Your task to perform on an android device: open app "NewsBreak: Local News & Alerts" (install if not already installed) Image 0: 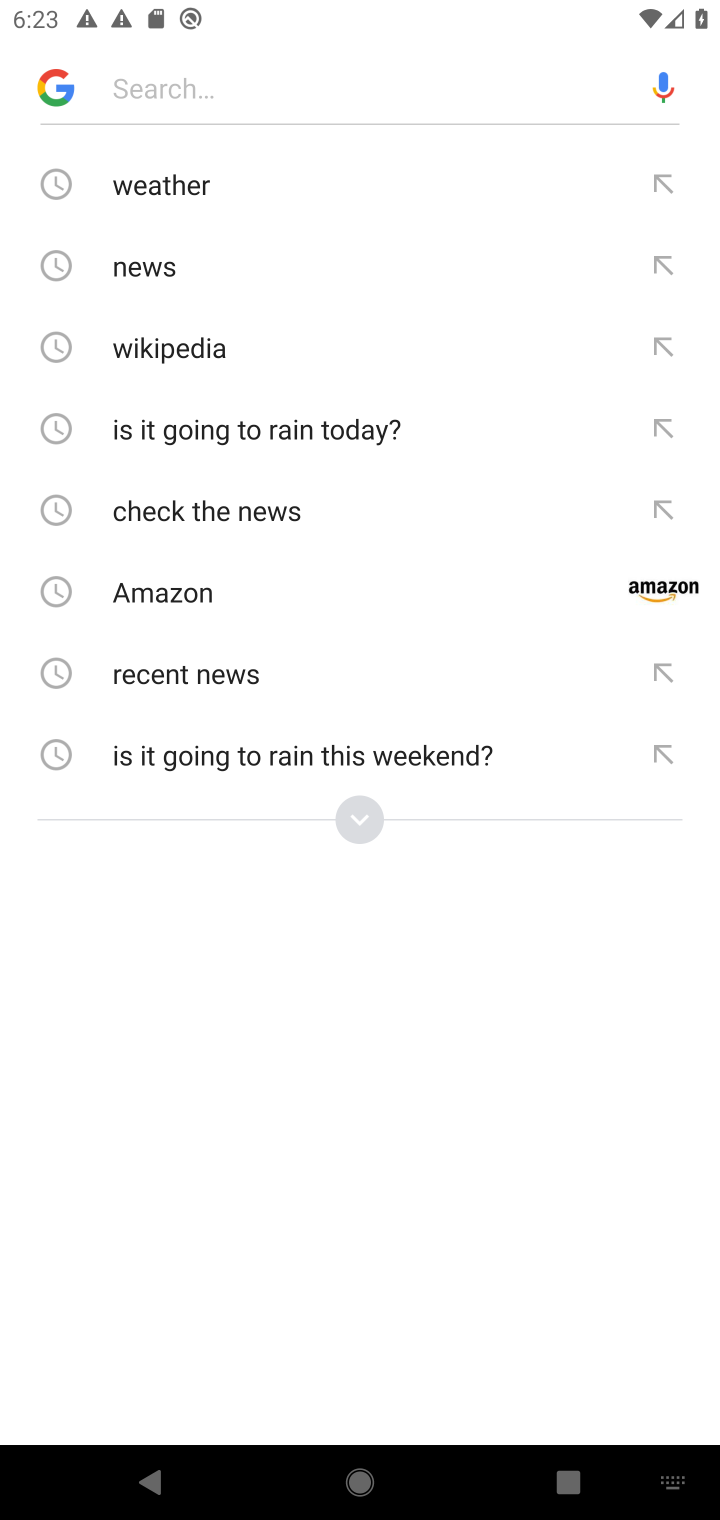
Step 0: press home button
Your task to perform on an android device: open app "NewsBreak: Local News & Alerts" (install if not already installed) Image 1: 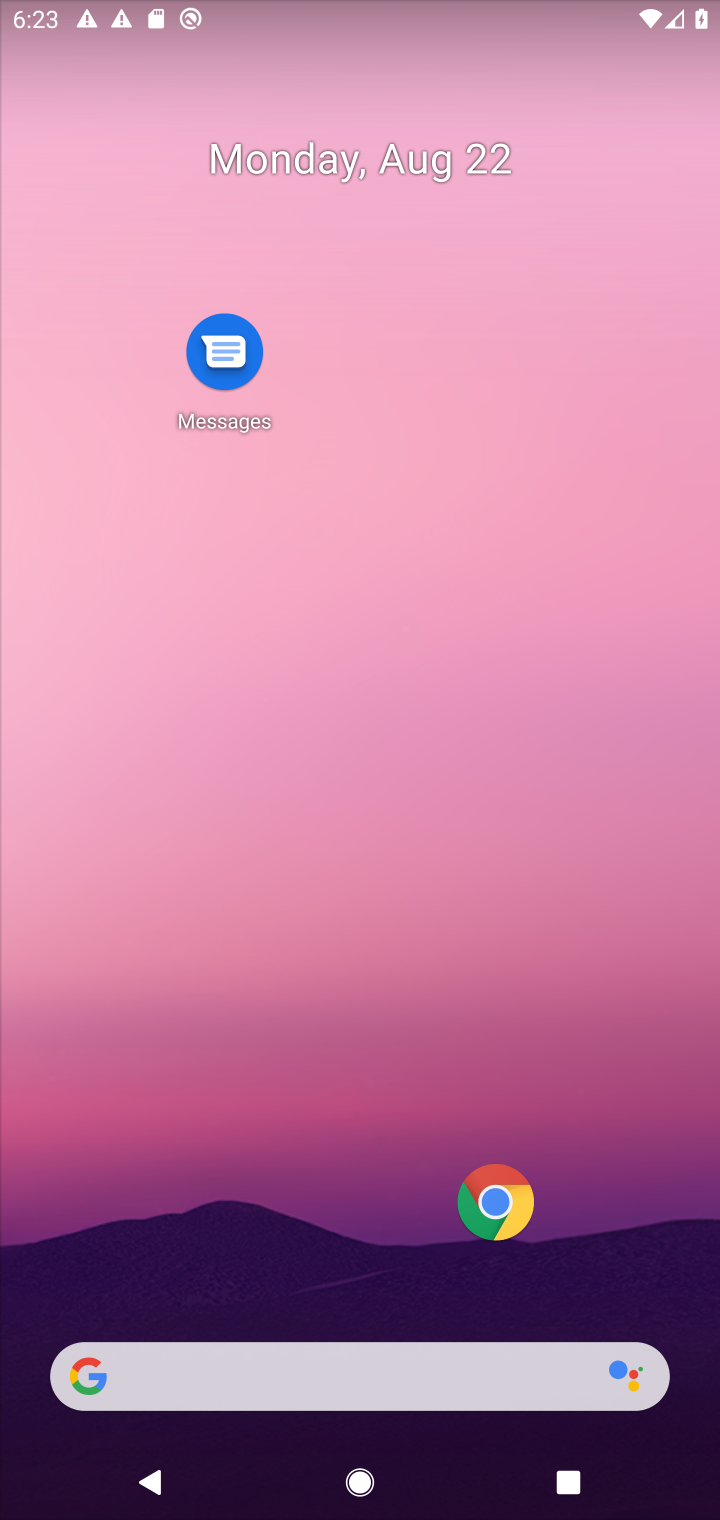
Step 1: drag from (281, 869) to (281, 328)
Your task to perform on an android device: open app "NewsBreak: Local News & Alerts" (install if not already installed) Image 2: 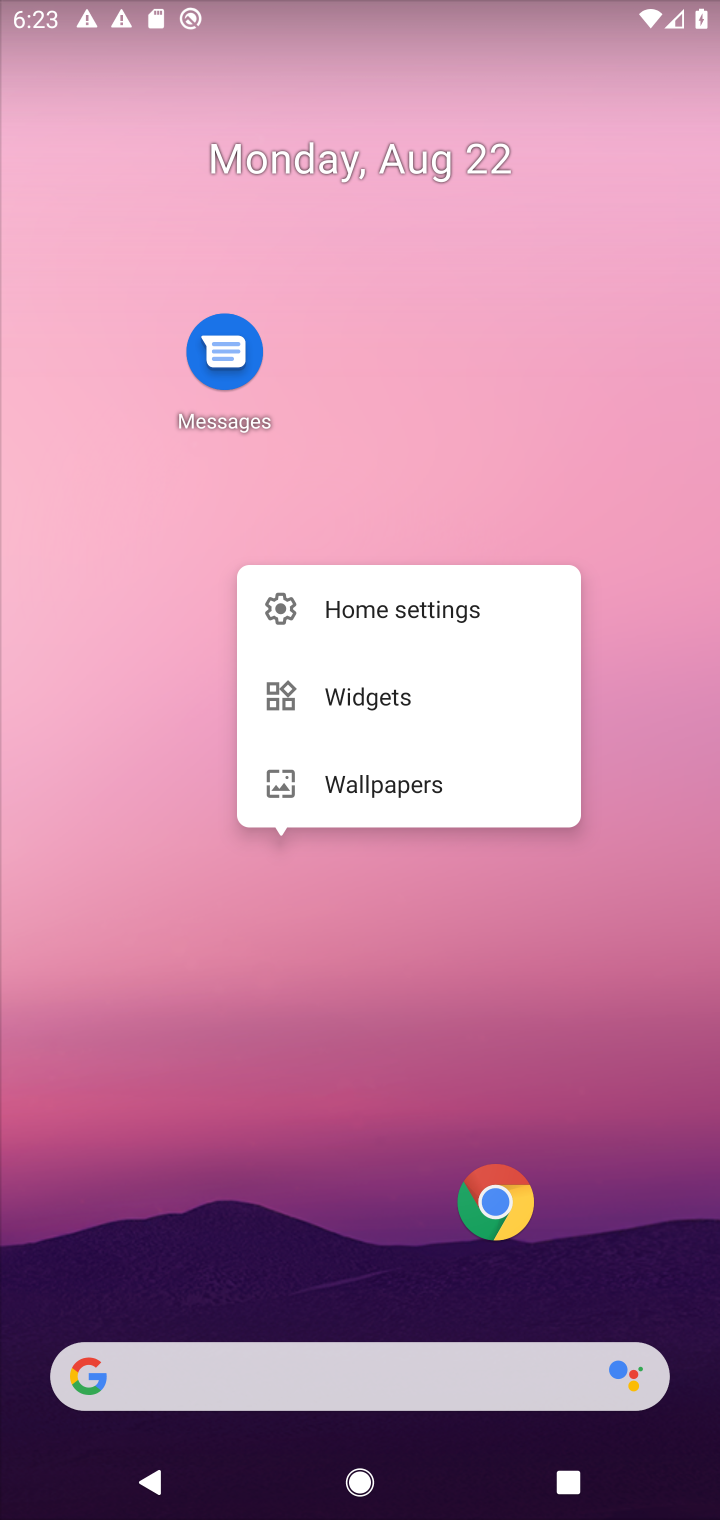
Step 2: drag from (283, 1347) to (73, 246)
Your task to perform on an android device: open app "NewsBreak: Local News & Alerts" (install if not already installed) Image 3: 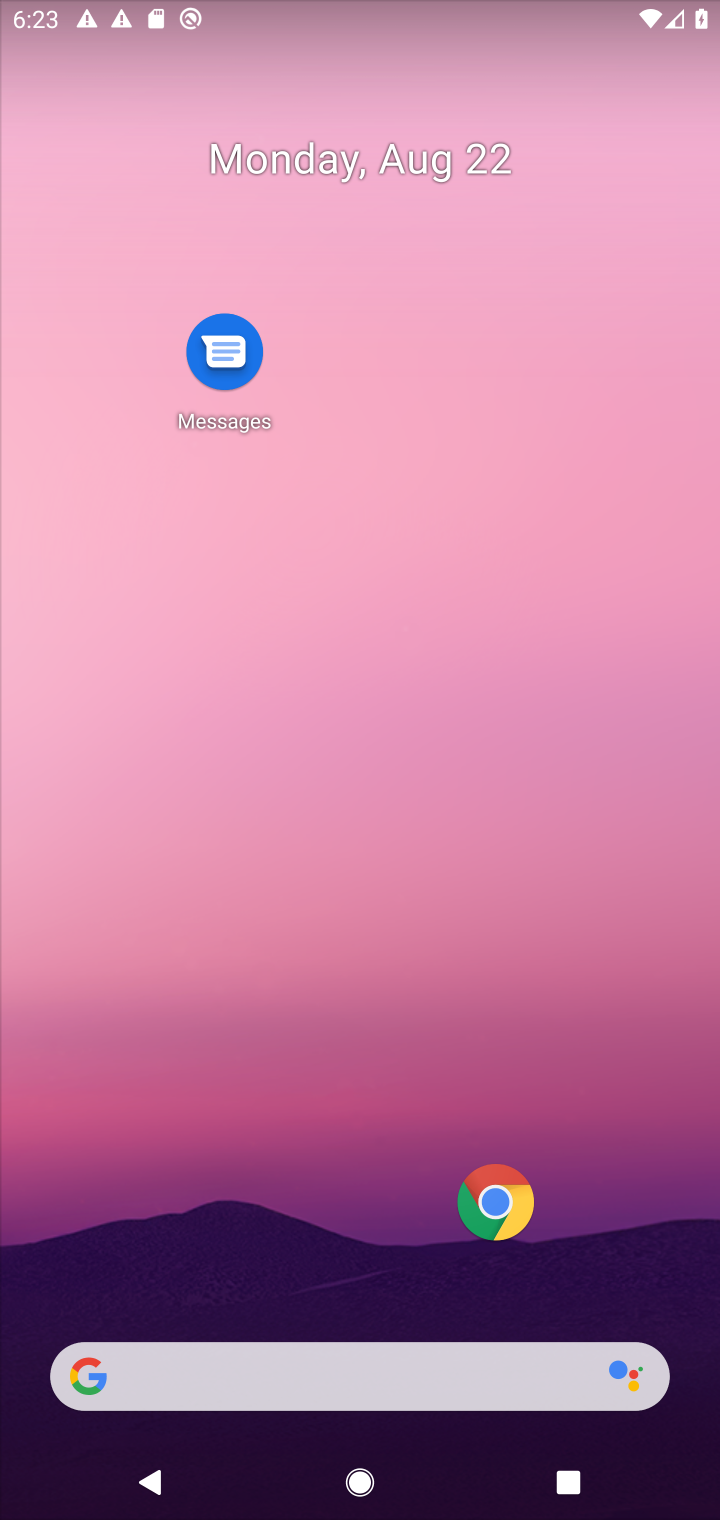
Step 3: drag from (231, 1358) to (256, 220)
Your task to perform on an android device: open app "NewsBreak: Local News & Alerts" (install if not already installed) Image 4: 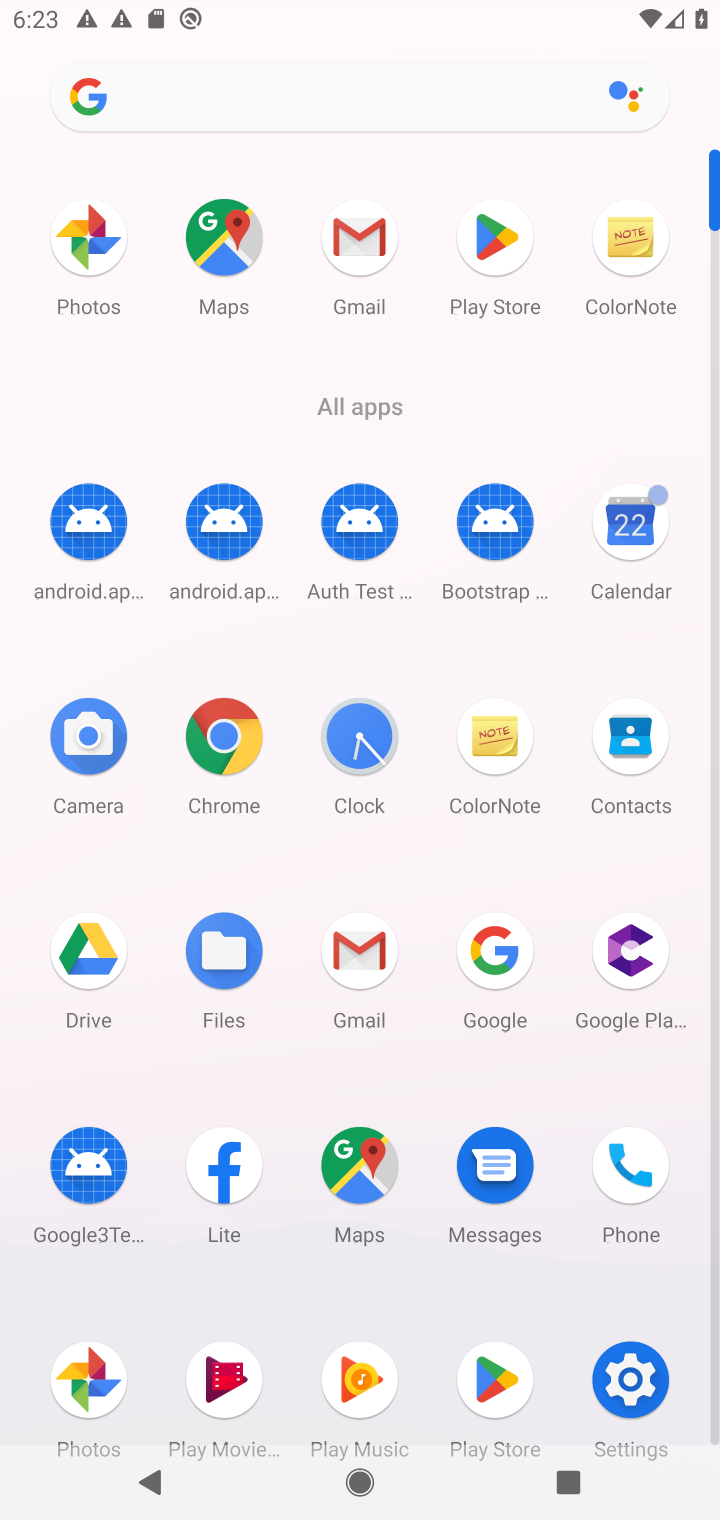
Step 4: click (488, 259)
Your task to perform on an android device: open app "NewsBreak: Local News & Alerts" (install if not already installed) Image 5: 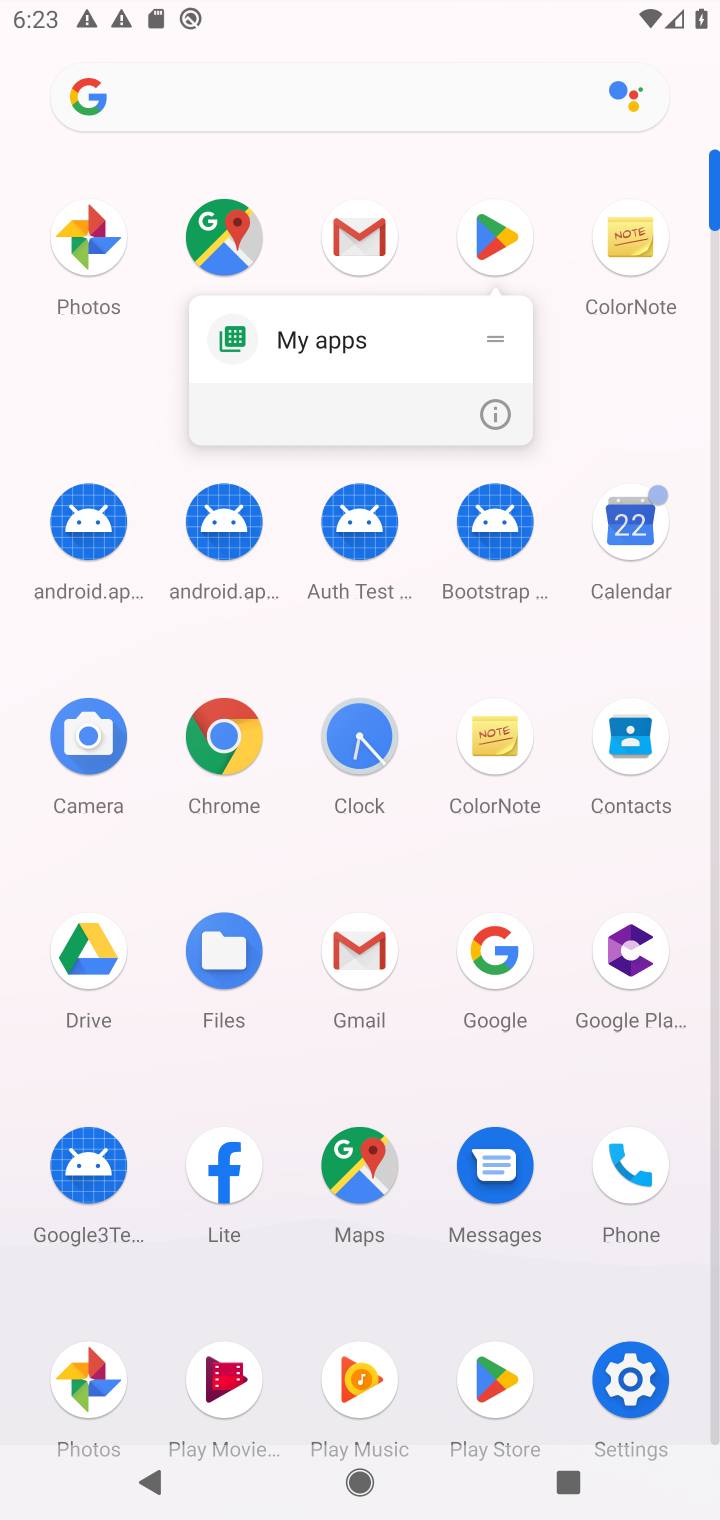
Step 5: click (490, 232)
Your task to perform on an android device: open app "NewsBreak: Local News & Alerts" (install if not already installed) Image 6: 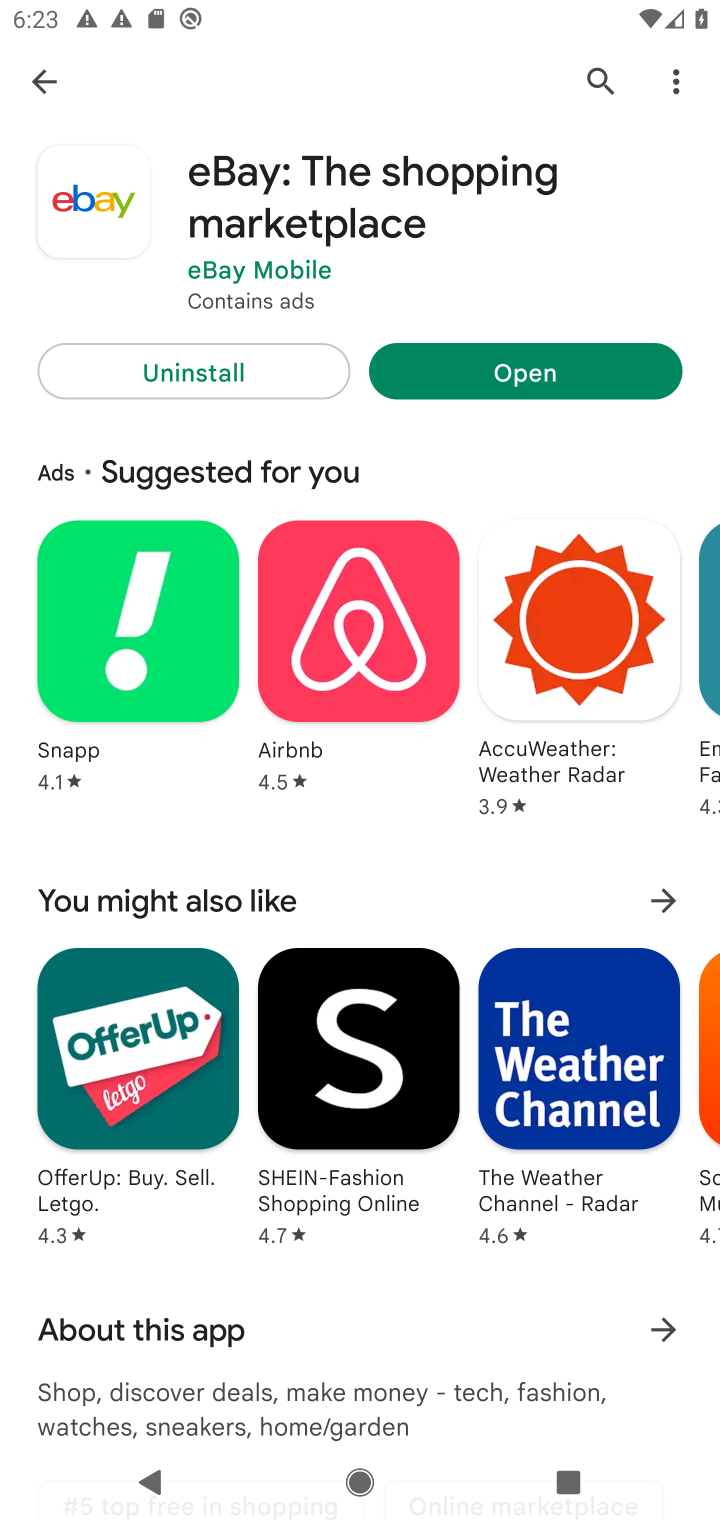
Step 6: click (602, 76)
Your task to perform on an android device: open app "NewsBreak: Local News & Alerts" (install if not already installed) Image 7: 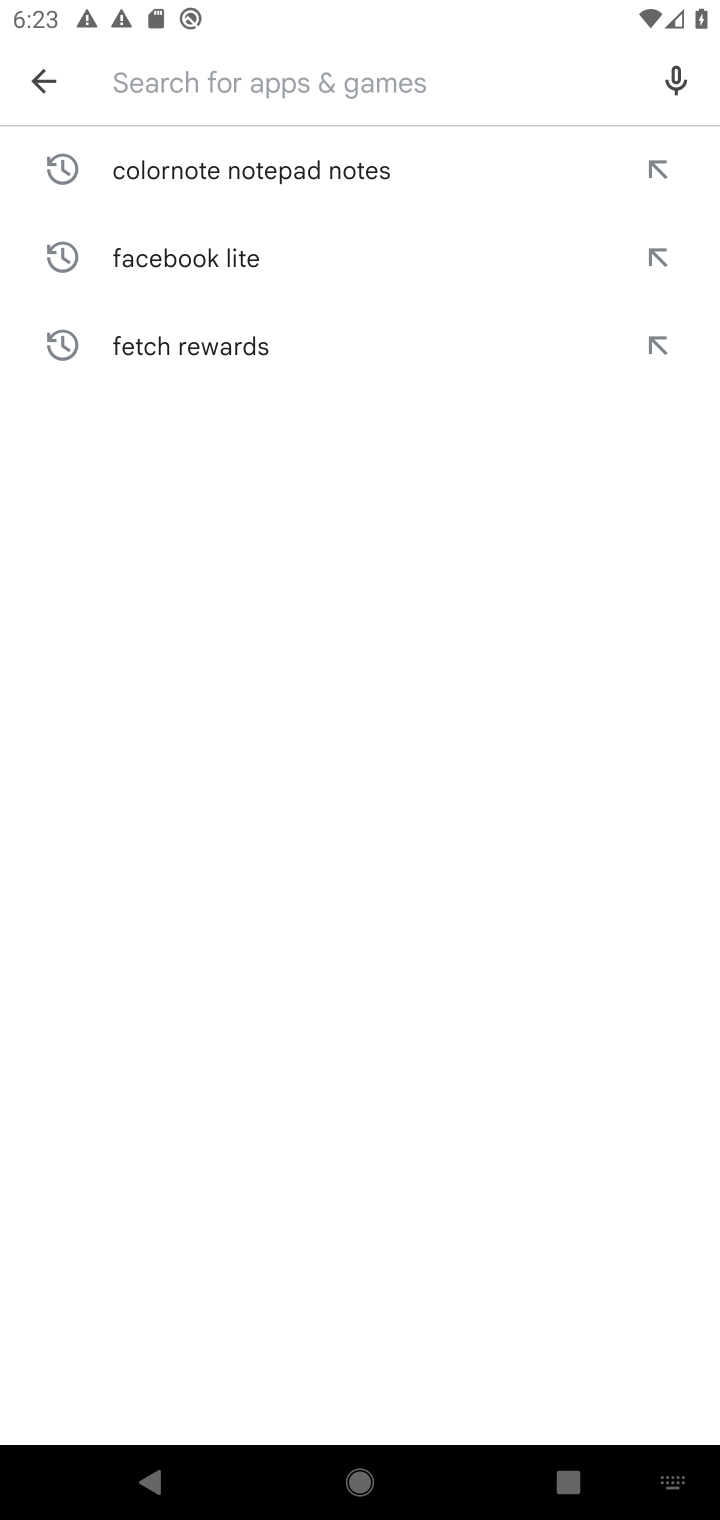
Step 7: type "NewsBreak: Local News & Alerts"
Your task to perform on an android device: open app "NewsBreak: Local News & Alerts" (install if not already installed) Image 8: 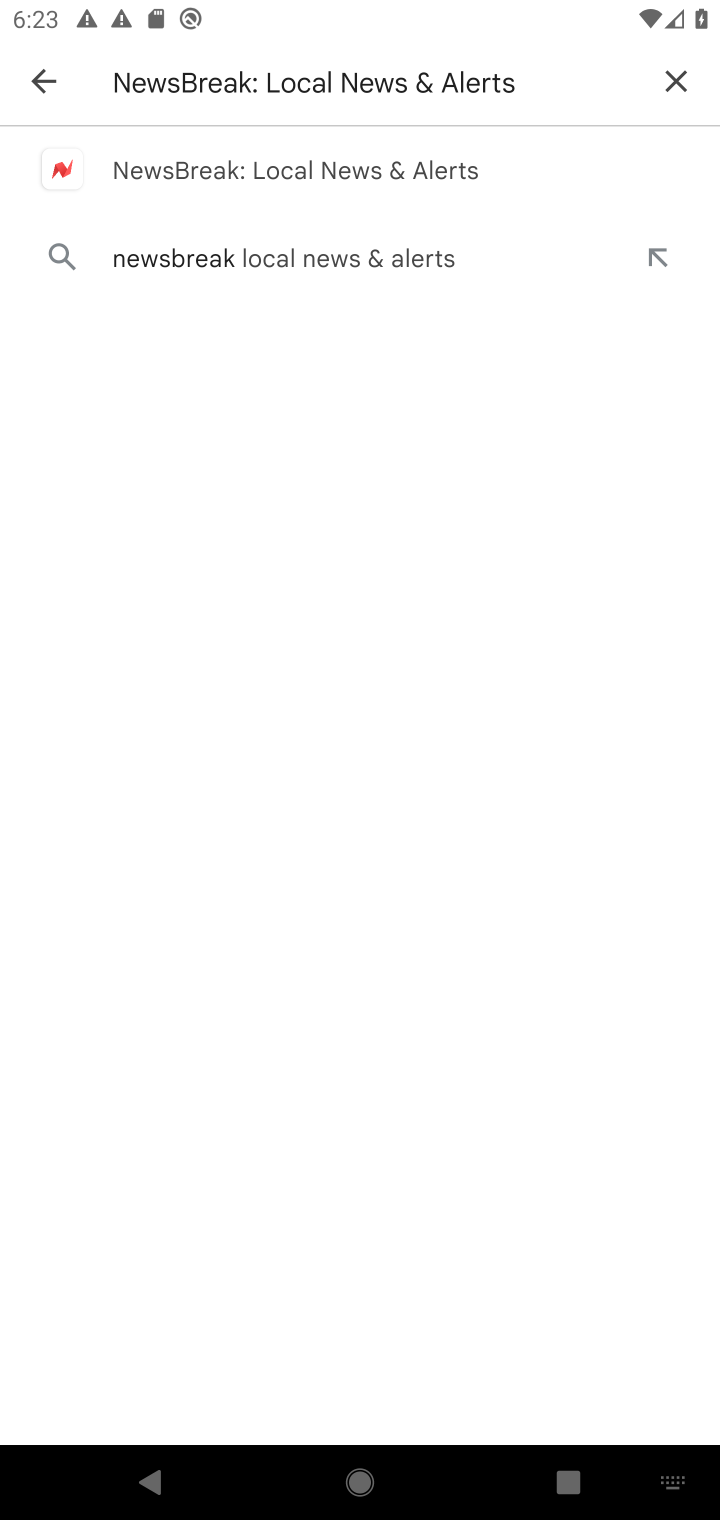
Step 8: click (237, 168)
Your task to perform on an android device: open app "NewsBreak: Local News & Alerts" (install if not already installed) Image 9: 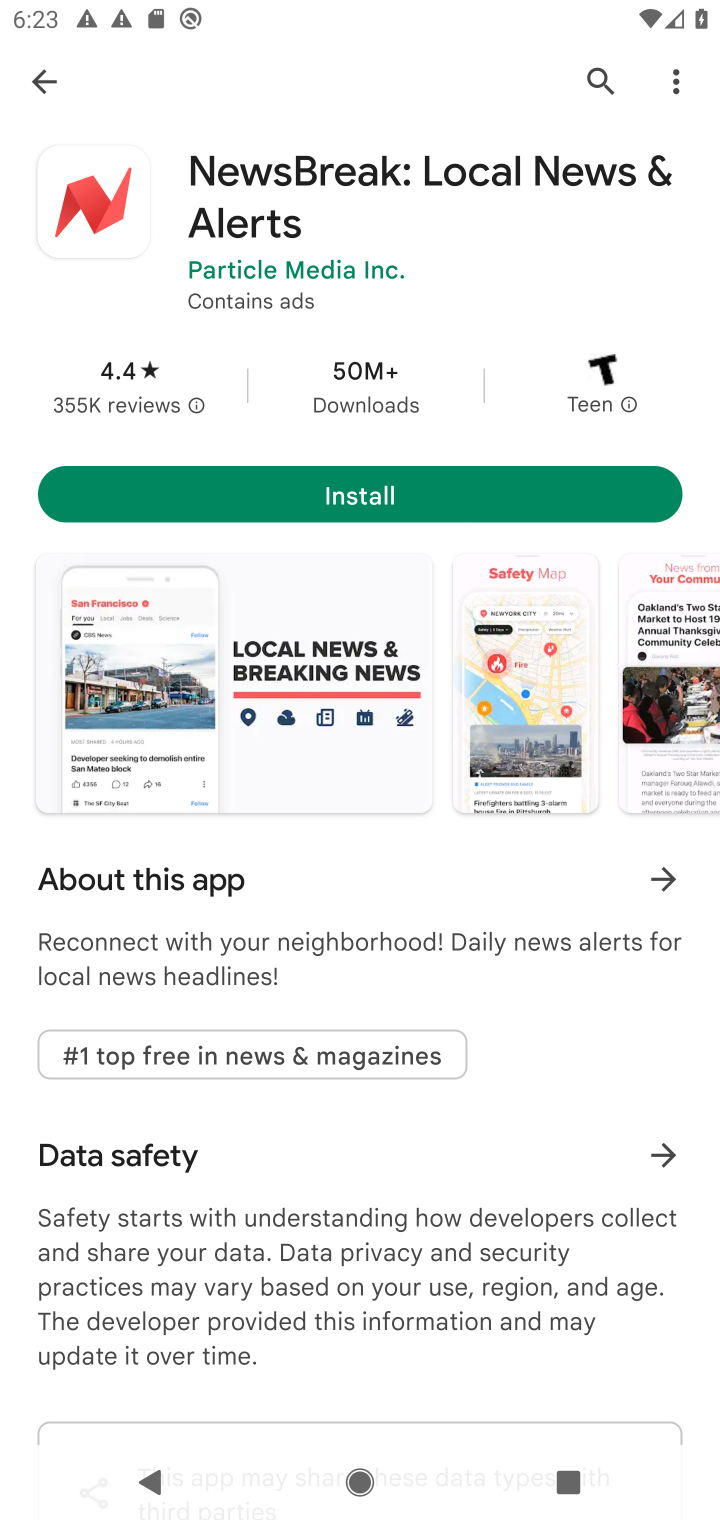
Step 9: click (385, 504)
Your task to perform on an android device: open app "NewsBreak: Local News & Alerts" (install if not already installed) Image 10: 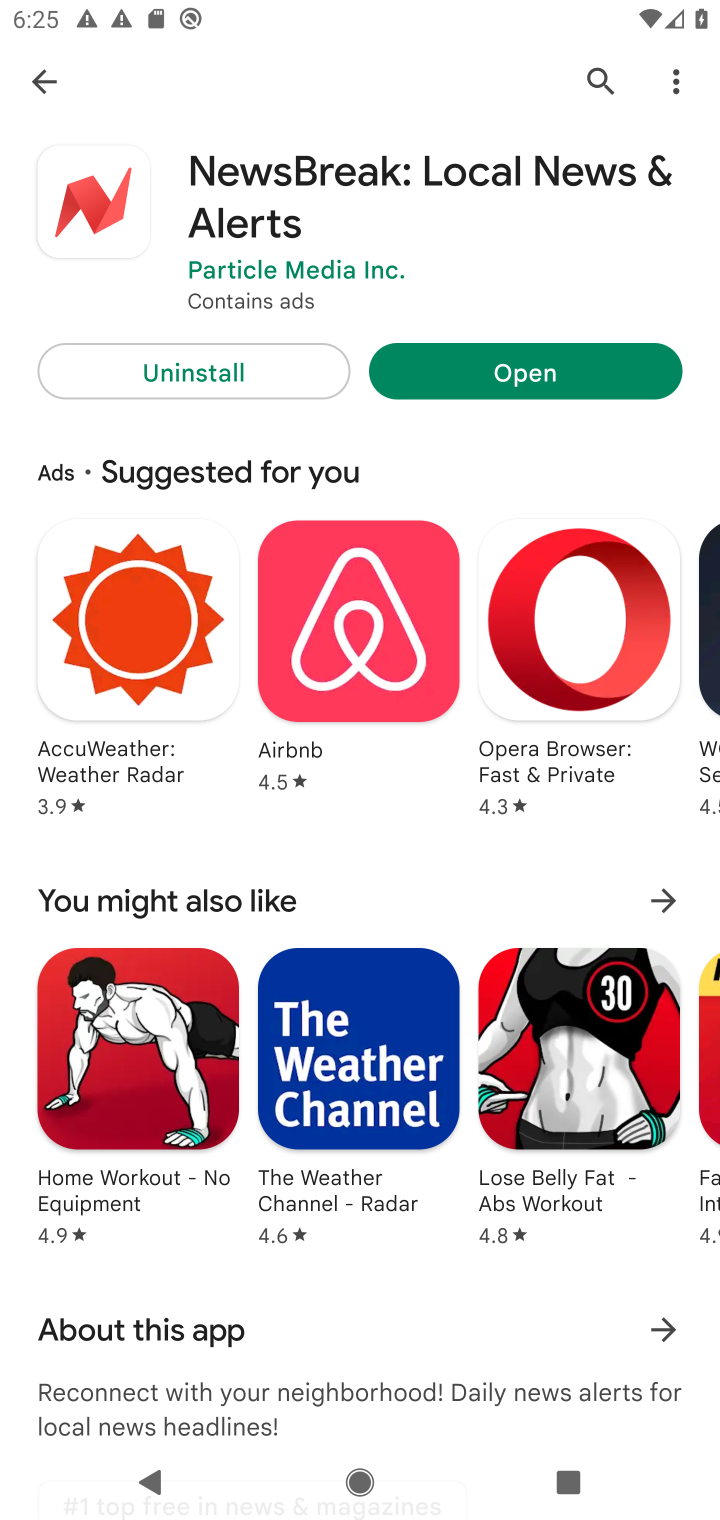
Step 10: click (588, 376)
Your task to perform on an android device: open app "NewsBreak: Local News & Alerts" (install if not already installed) Image 11: 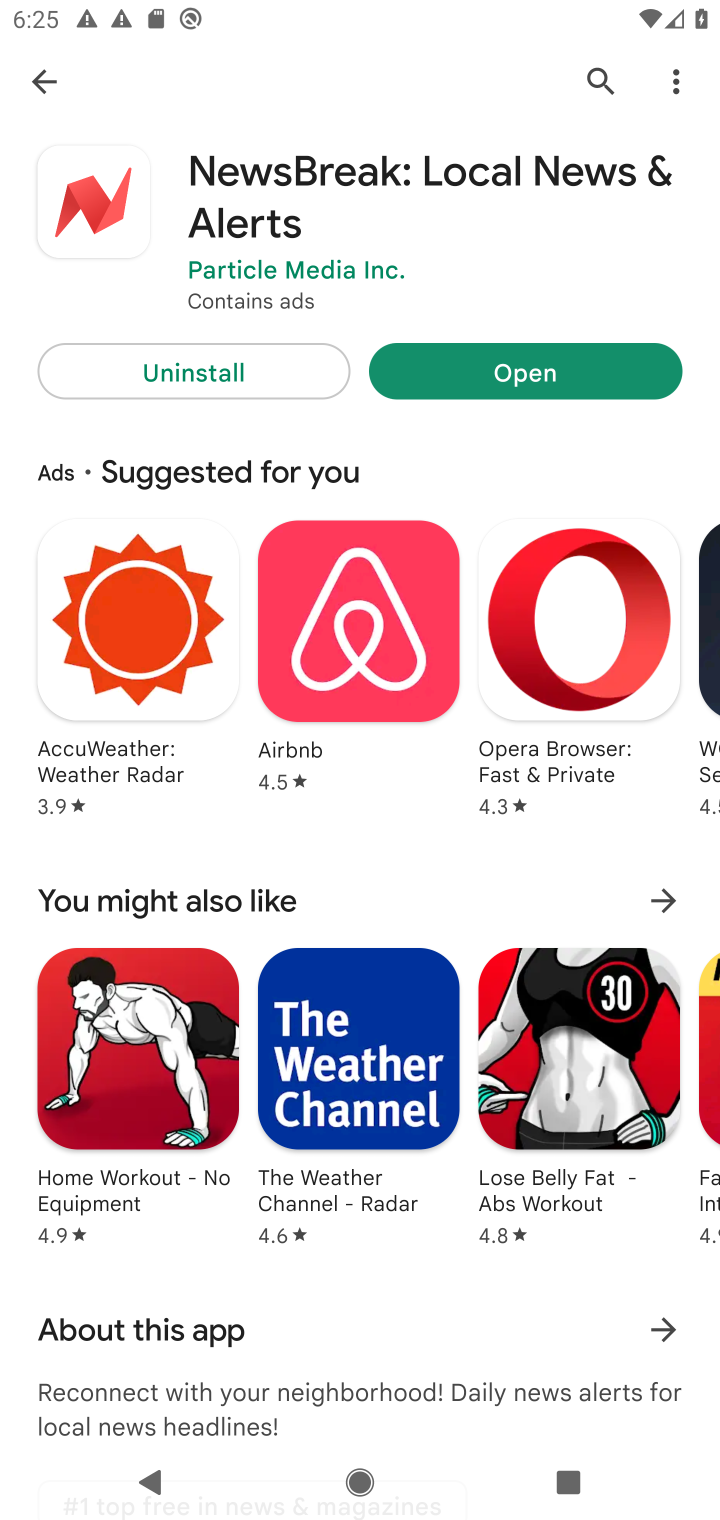
Step 11: task complete